Your task to perform on an android device: all mails in gmail Image 0: 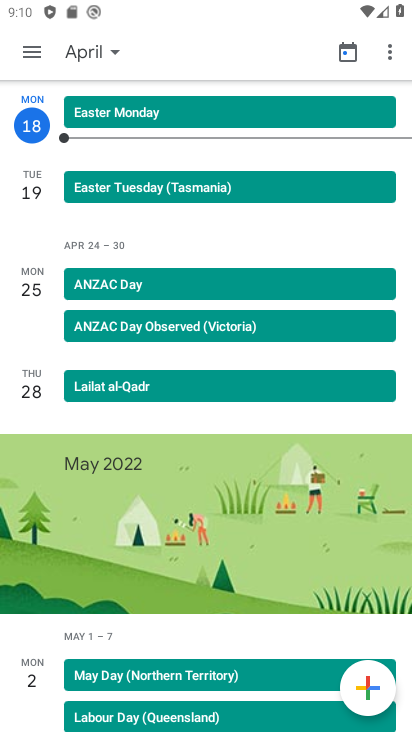
Step 0: press back button
Your task to perform on an android device: all mails in gmail Image 1: 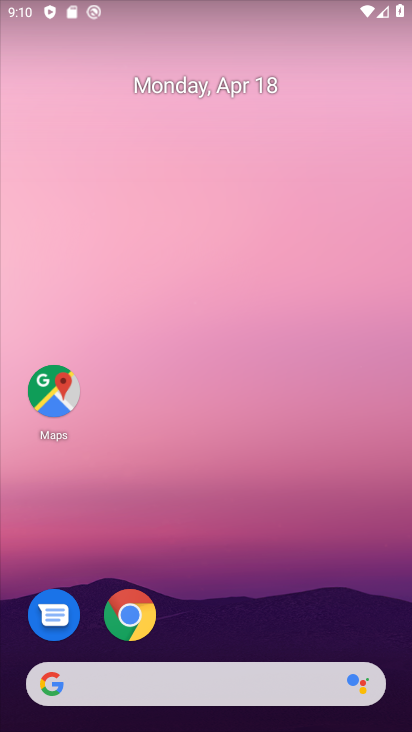
Step 1: drag from (207, 655) to (261, 221)
Your task to perform on an android device: all mails in gmail Image 2: 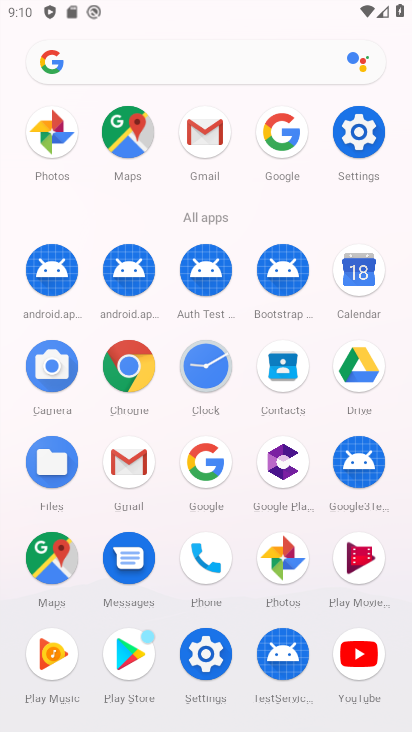
Step 2: click (206, 137)
Your task to perform on an android device: all mails in gmail Image 3: 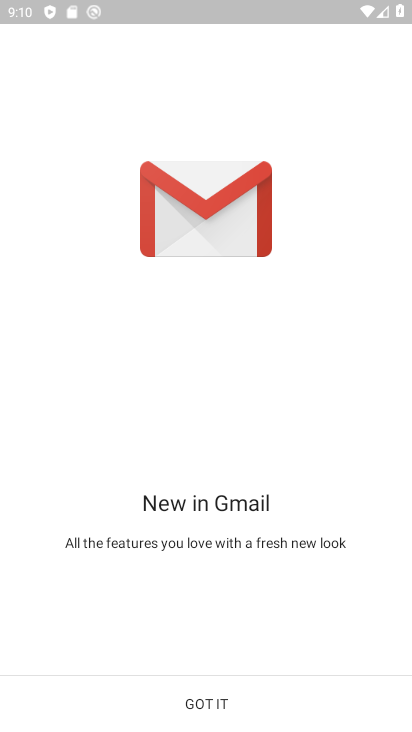
Step 3: click (217, 698)
Your task to perform on an android device: all mails in gmail Image 4: 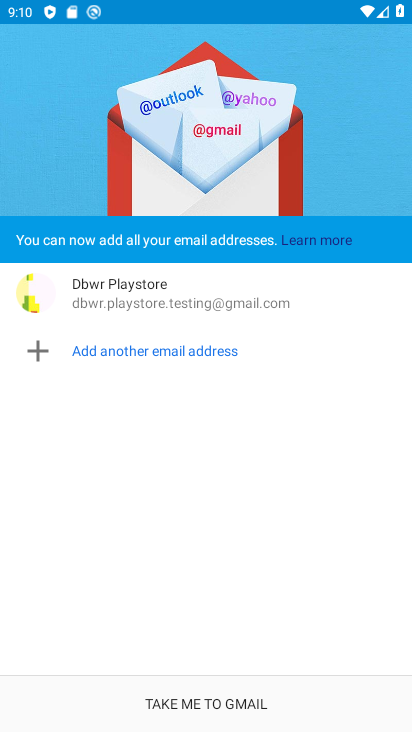
Step 4: click (231, 698)
Your task to perform on an android device: all mails in gmail Image 5: 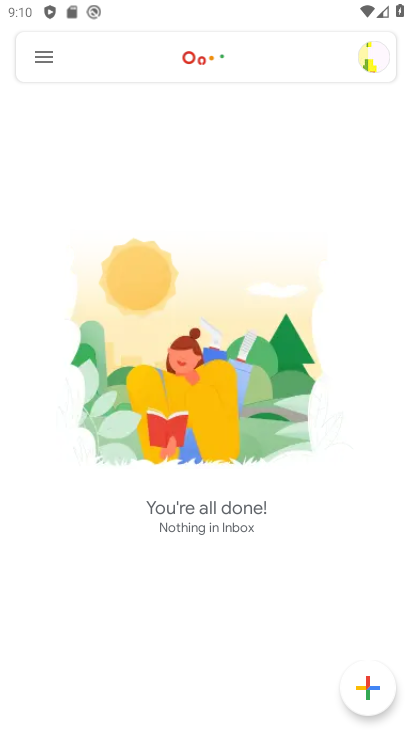
Step 5: click (40, 46)
Your task to perform on an android device: all mails in gmail Image 6: 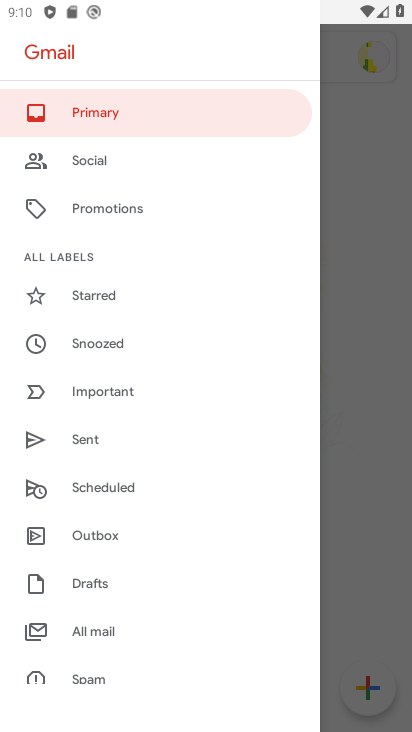
Step 6: click (78, 635)
Your task to perform on an android device: all mails in gmail Image 7: 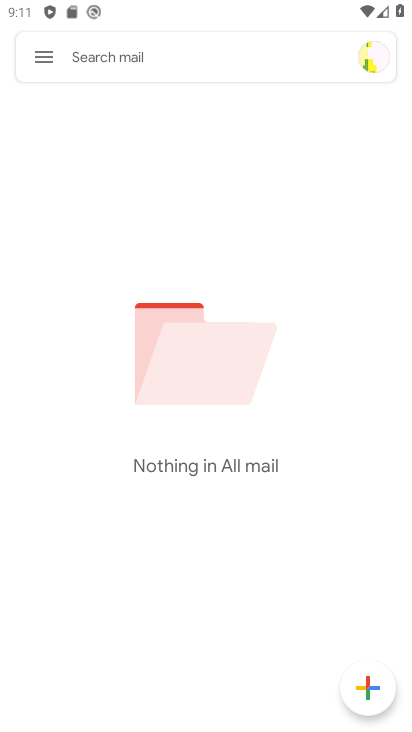
Step 7: task complete